Your task to perform on an android device: Go to Google Image 0: 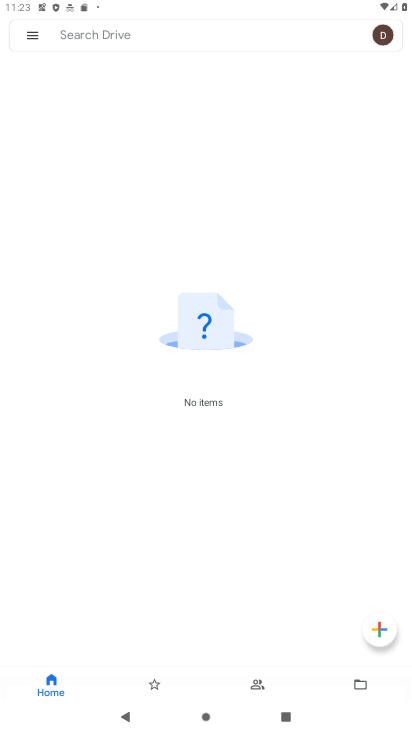
Step 0: press home button
Your task to perform on an android device: Go to Google Image 1: 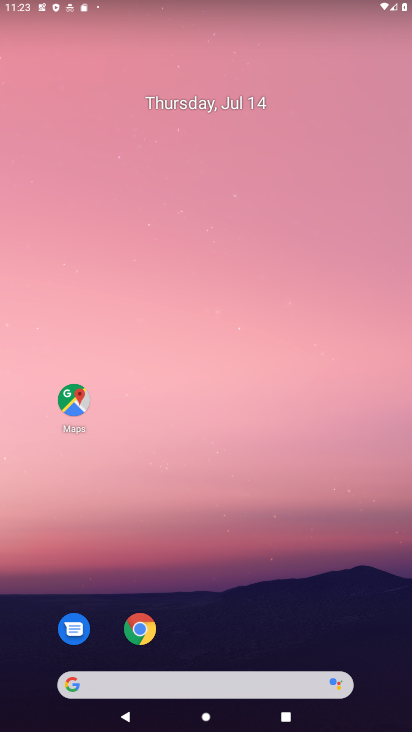
Step 1: drag from (285, 608) to (251, 4)
Your task to perform on an android device: Go to Google Image 2: 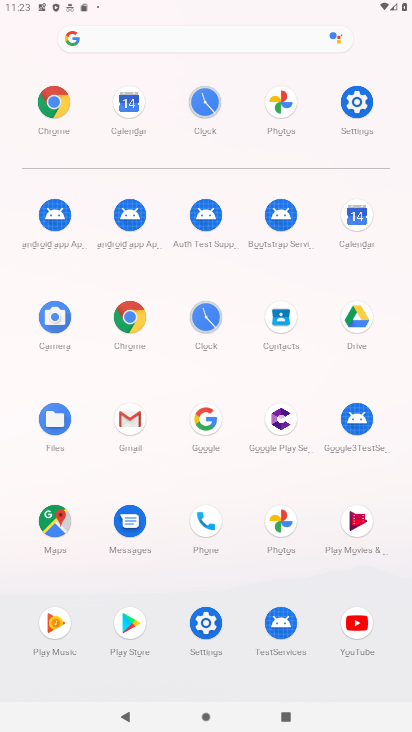
Step 2: click (198, 412)
Your task to perform on an android device: Go to Google Image 3: 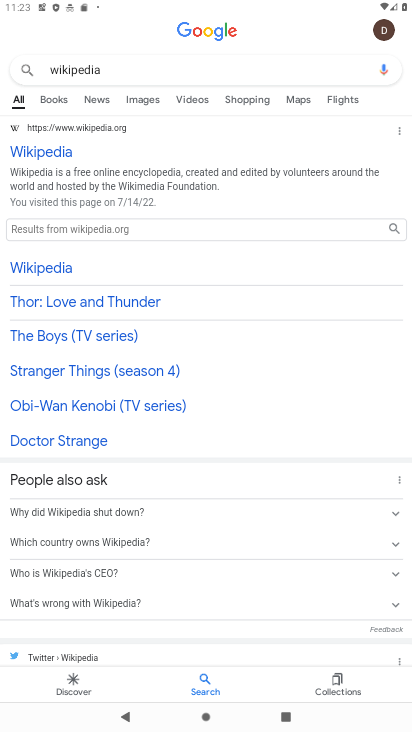
Step 3: click (214, 29)
Your task to perform on an android device: Go to Google Image 4: 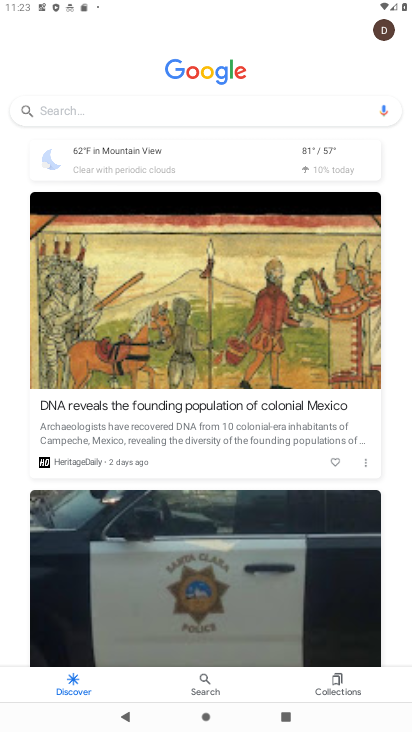
Step 4: task complete